Your task to perform on an android device: Open settings on Google Maps Image 0: 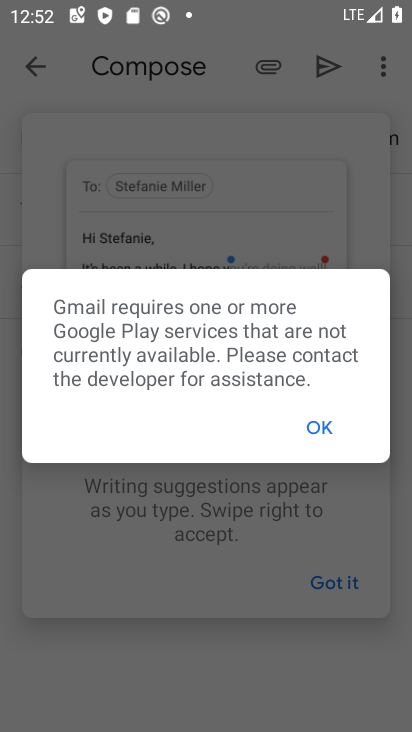
Step 0: press home button
Your task to perform on an android device: Open settings on Google Maps Image 1: 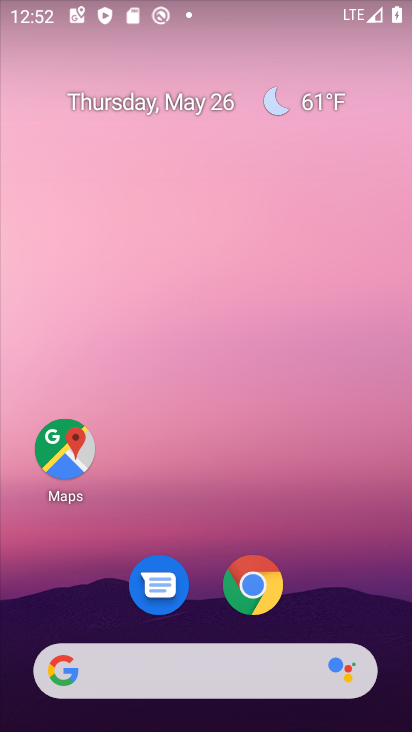
Step 1: click (63, 440)
Your task to perform on an android device: Open settings on Google Maps Image 2: 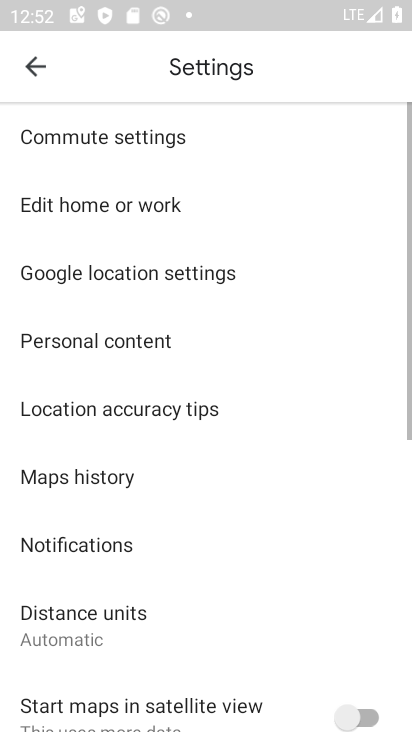
Step 2: click (34, 65)
Your task to perform on an android device: Open settings on Google Maps Image 3: 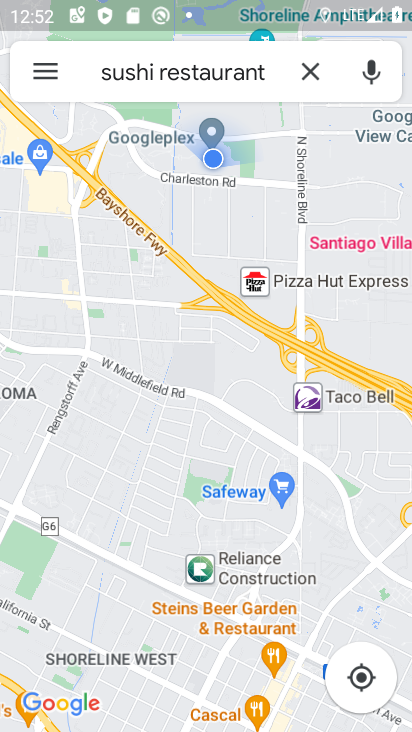
Step 3: click (40, 70)
Your task to perform on an android device: Open settings on Google Maps Image 4: 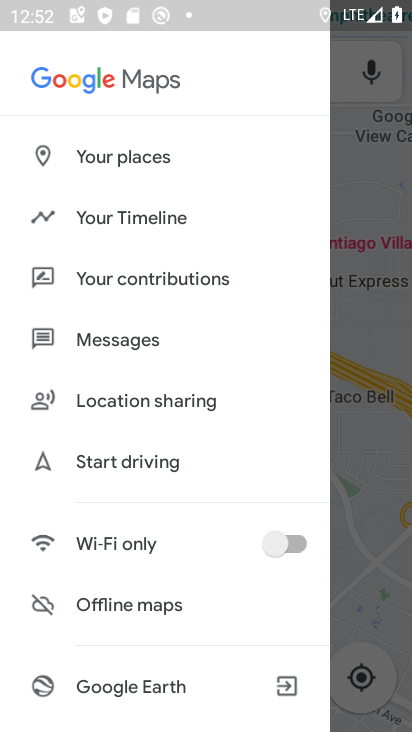
Step 4: drag from (171, 510) to (218, 133)
Your task to perform on an android device: Open settings on Google Maps Image 5: 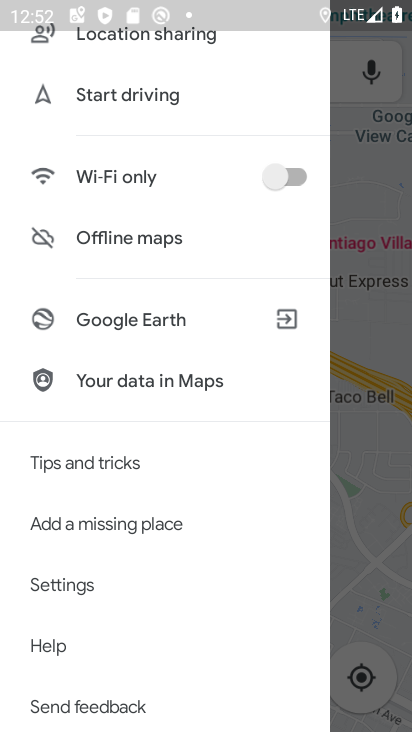
Step 5: click (132, 585)
Your task to perform on an android device: Open settings on Google Maps Image 6: 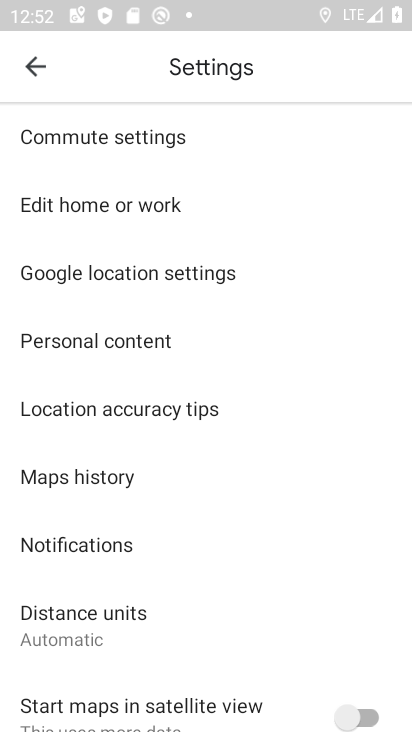
Step 6: task complete